Your task to perform on an android device: Clear all items from cart on costco.com. Search for asus rog on costco.com, select the first entry, and add it to the cart. Image 0: 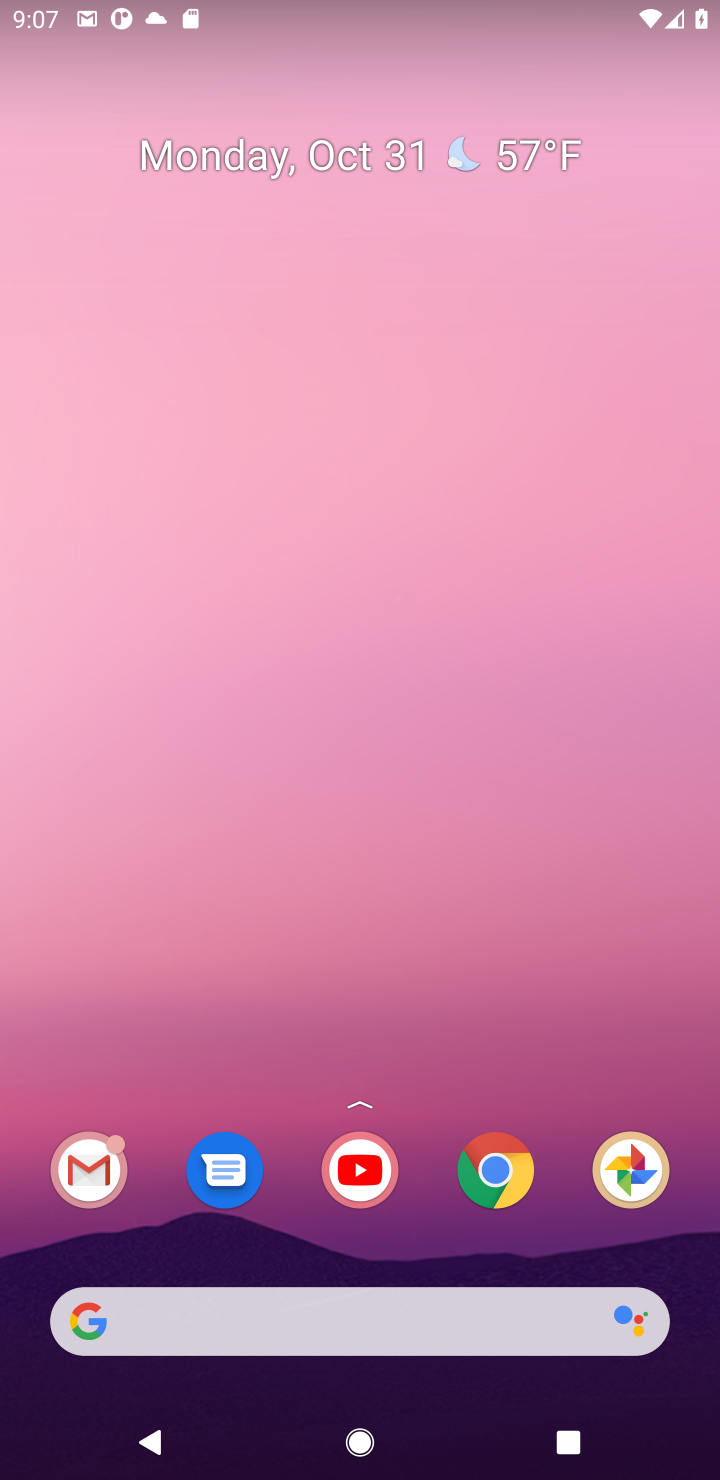
Step 0: click (489, 1173)
Your task to perform on an android device: Clear all items from cart on costco.com. Search for asus rog on costco.com, select the first entry, and add it to the cart. Image 1: 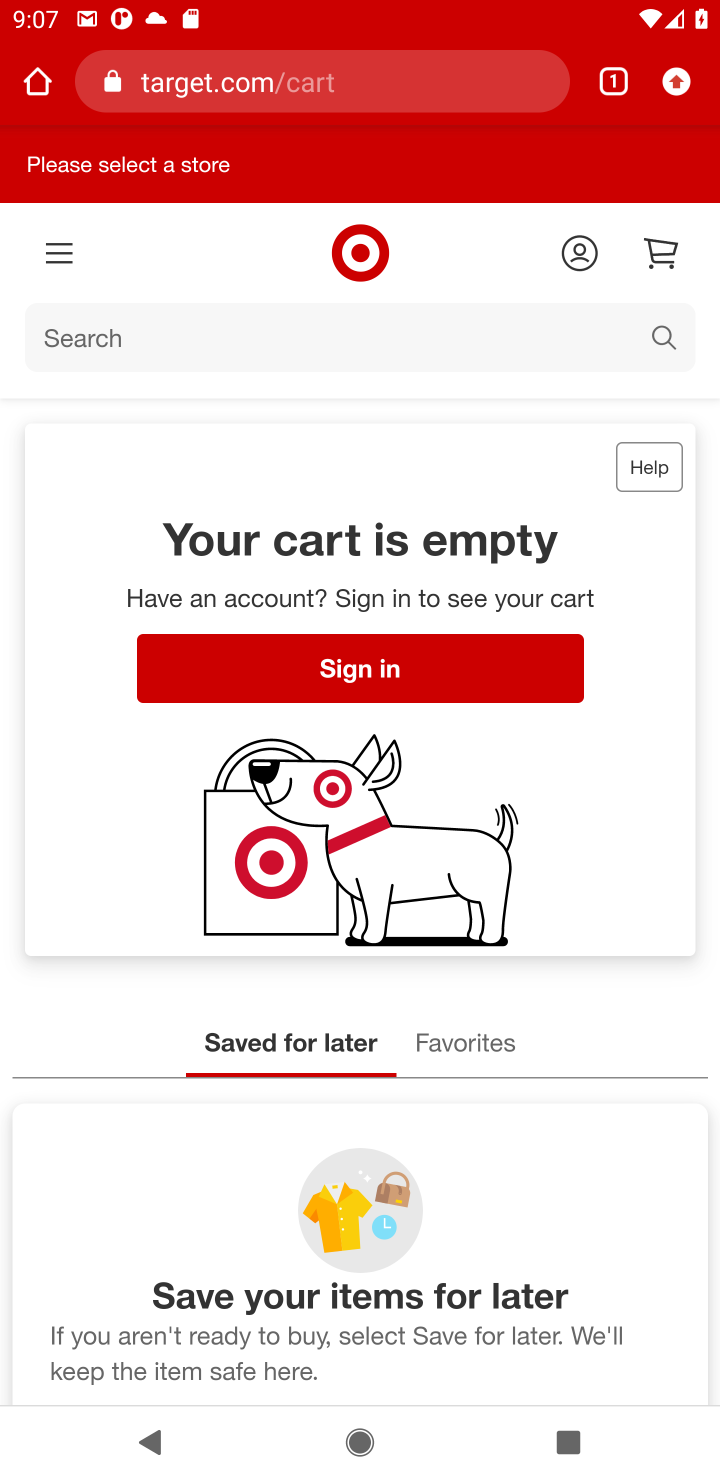
Step 1: click (367, 93)
Your task to perform on an android device: Clear all items from cart on costco.com. Search for asus rog on costco.com, select the first entry, and add it to the cart. Image 2: 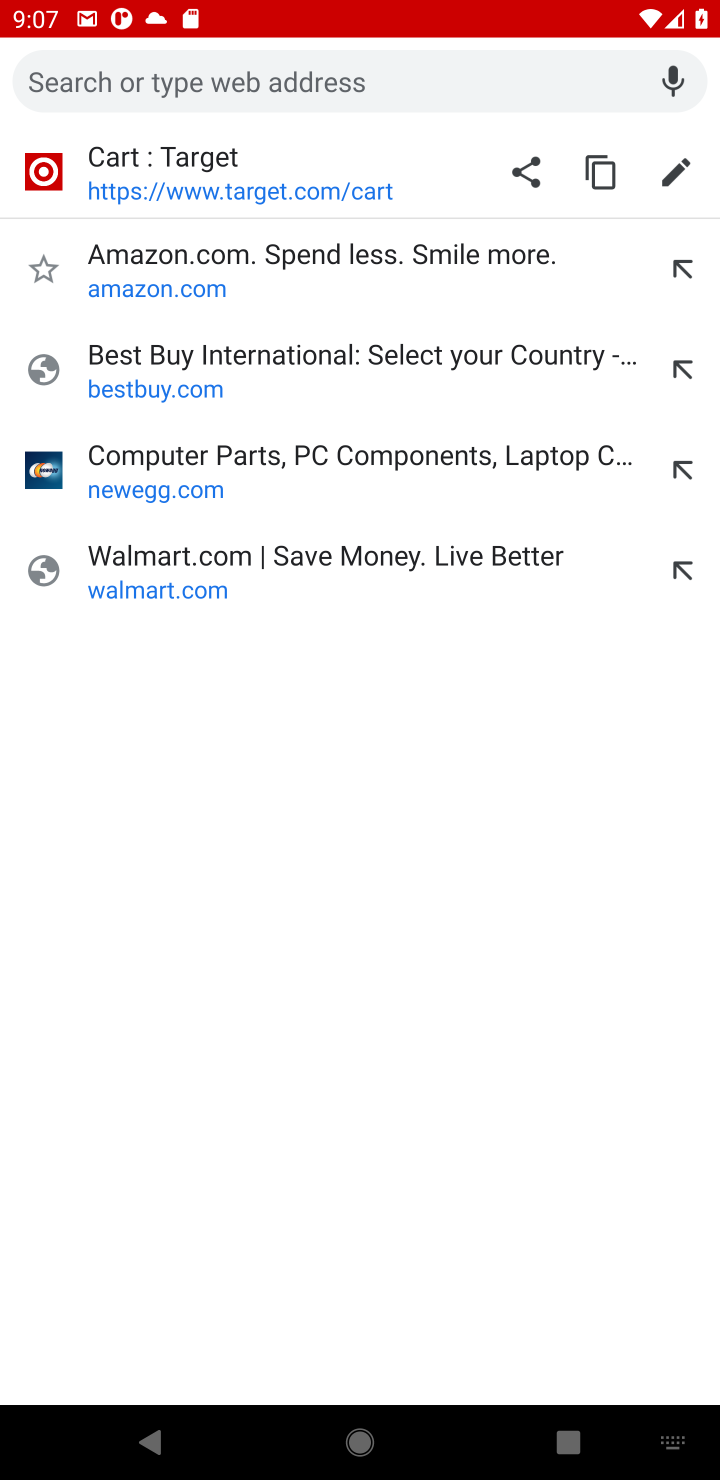
Step 2: type "costco"
Your task to perform on an android device: Clear all items from cart on costco.com. Search for asus rog on costco.com, select the first entry, and add it to the cart. Image 3: 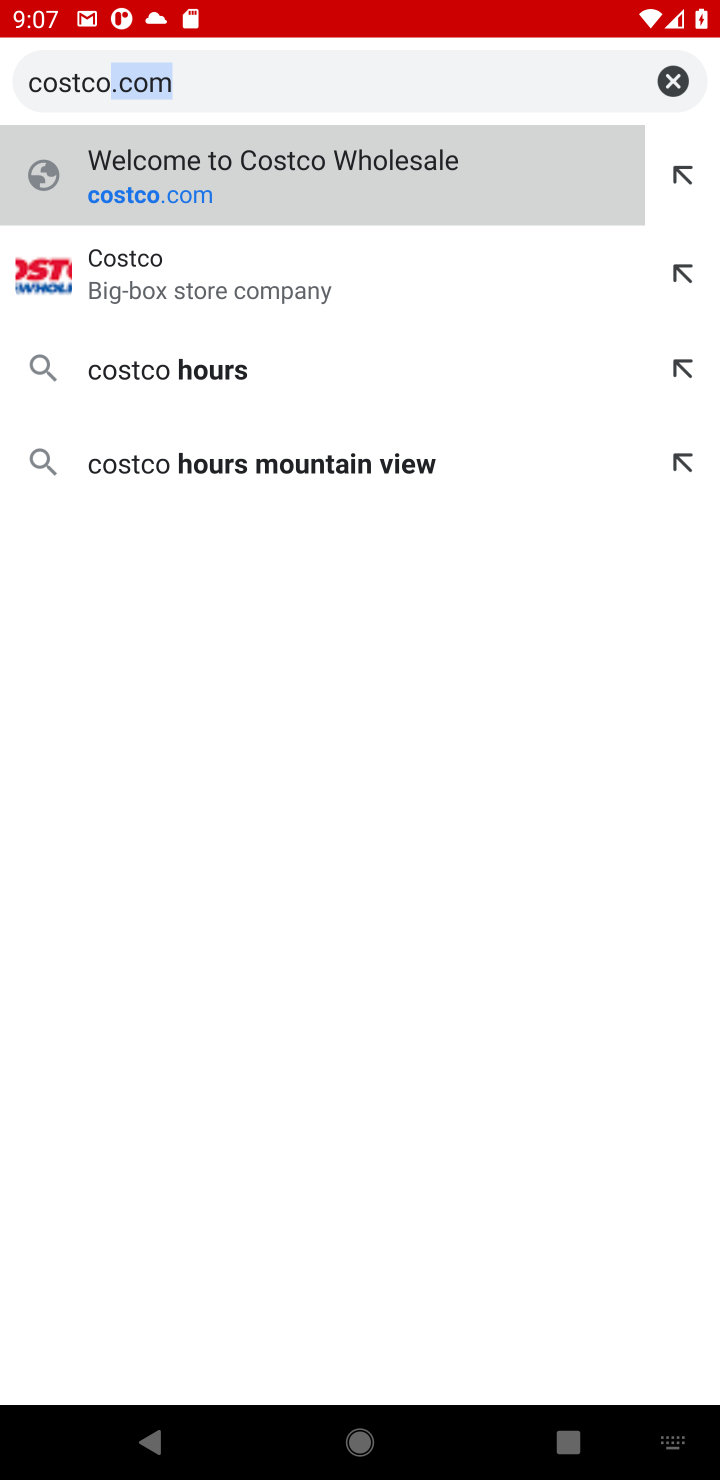
Step 3: click (148, 277)
Your task to perform on an android device: Clear all items from cart on costco.com. Search for asus rog on costco.com, select the first entry, and add it to the cart. Image 4: 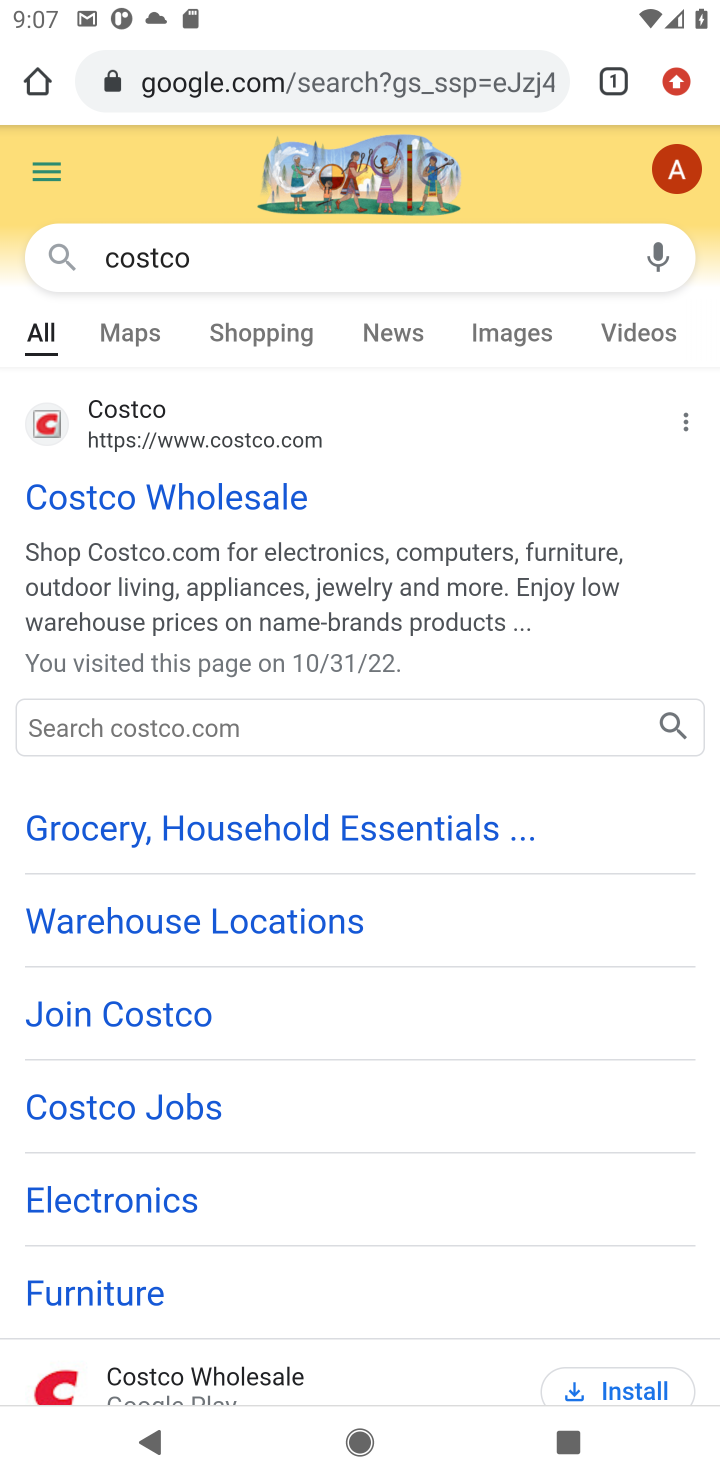
Step 4: click (74, 494)
Your task to perform on an android device: Clear all items from cart on costco.com. Search for asus rog on costco.com, select the first entry, and add it to the cart. Image 5: 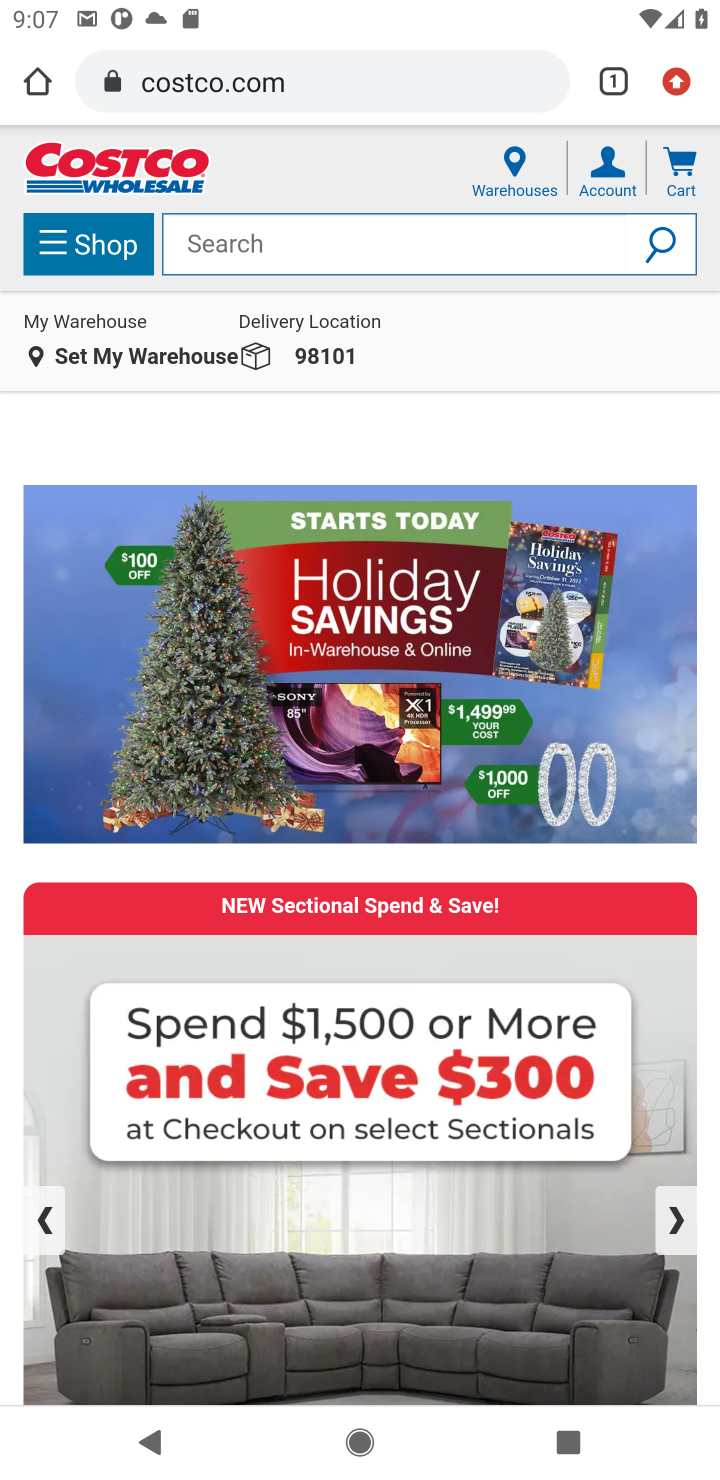
Step 5: click (661, 168)
Your task to perform on an android device: Clear all items from cart on costco.com. Search for asus rog on costco.com, select the first entry, and add it to the cart. Image 6: 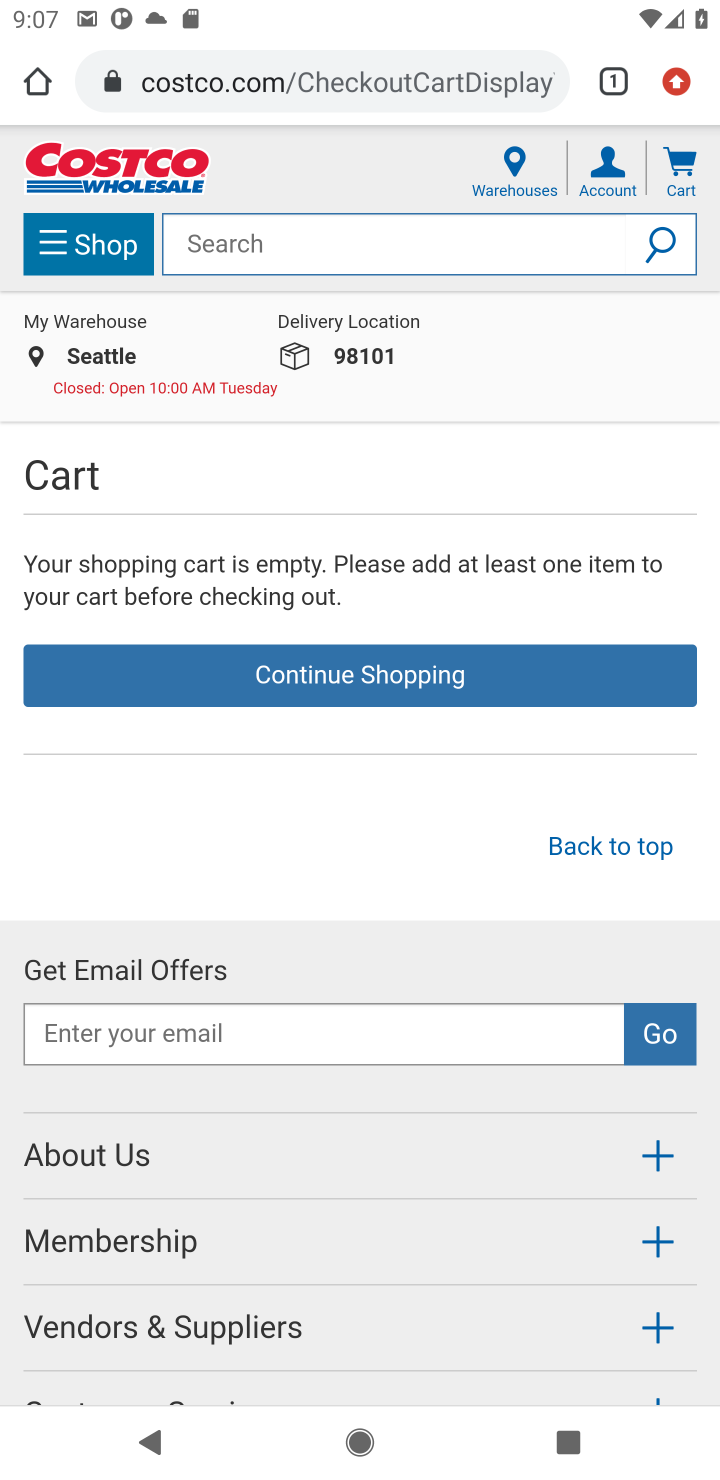
Step 6: click (212, 254)
Your task to perform on an android device: Clear all items from cart on costco.com. Search for asus rog on costco.com, select the first entry, and add it to the cart. Image 7: 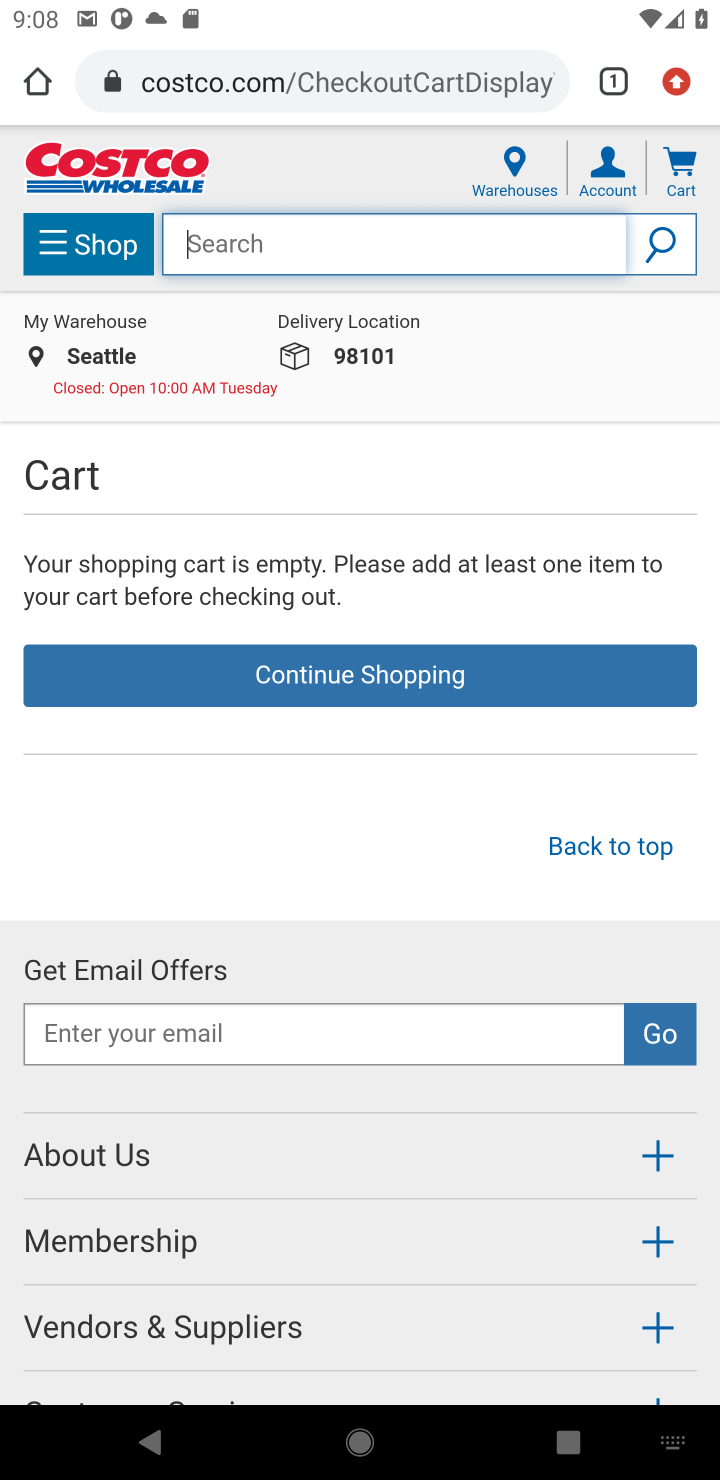
Step 7: type "asus rog"
Your task to perform on an android device: Clear all items from cart on costco.com. Search for asus rog on costco.com, select the first entry, and add it to the cart. Image 8: 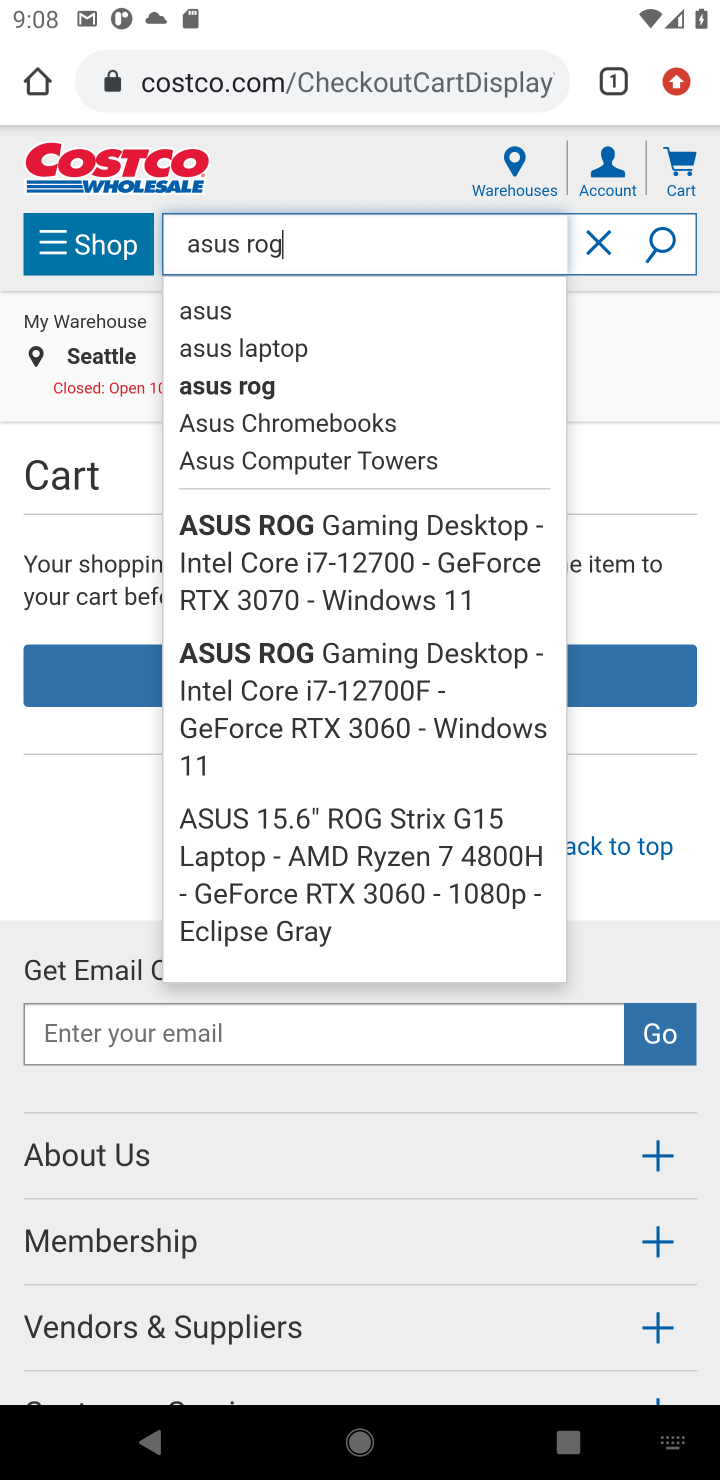
Step 8: click (669, 260)
Your task to perform on an android device: Clear all items from cart on costco.com. Search for asus rog on costco.com, select the first entry, and add it to the cart. Image 9: 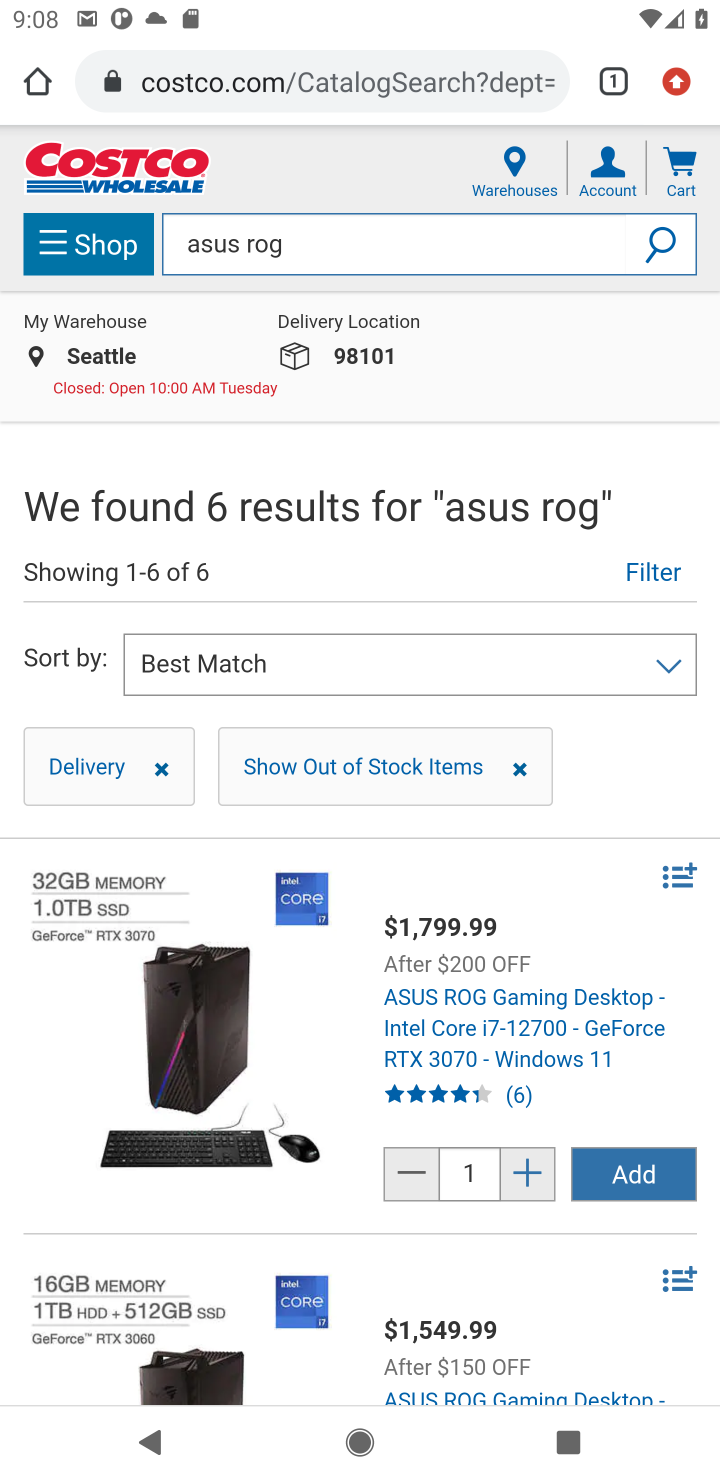
Step 9: click (666, 1182)
Your task to perform on an android device: Clear all items from cart on costco.com. Search for asus rog on costco.com, select the first entry, and add it to the cart. Image 10: 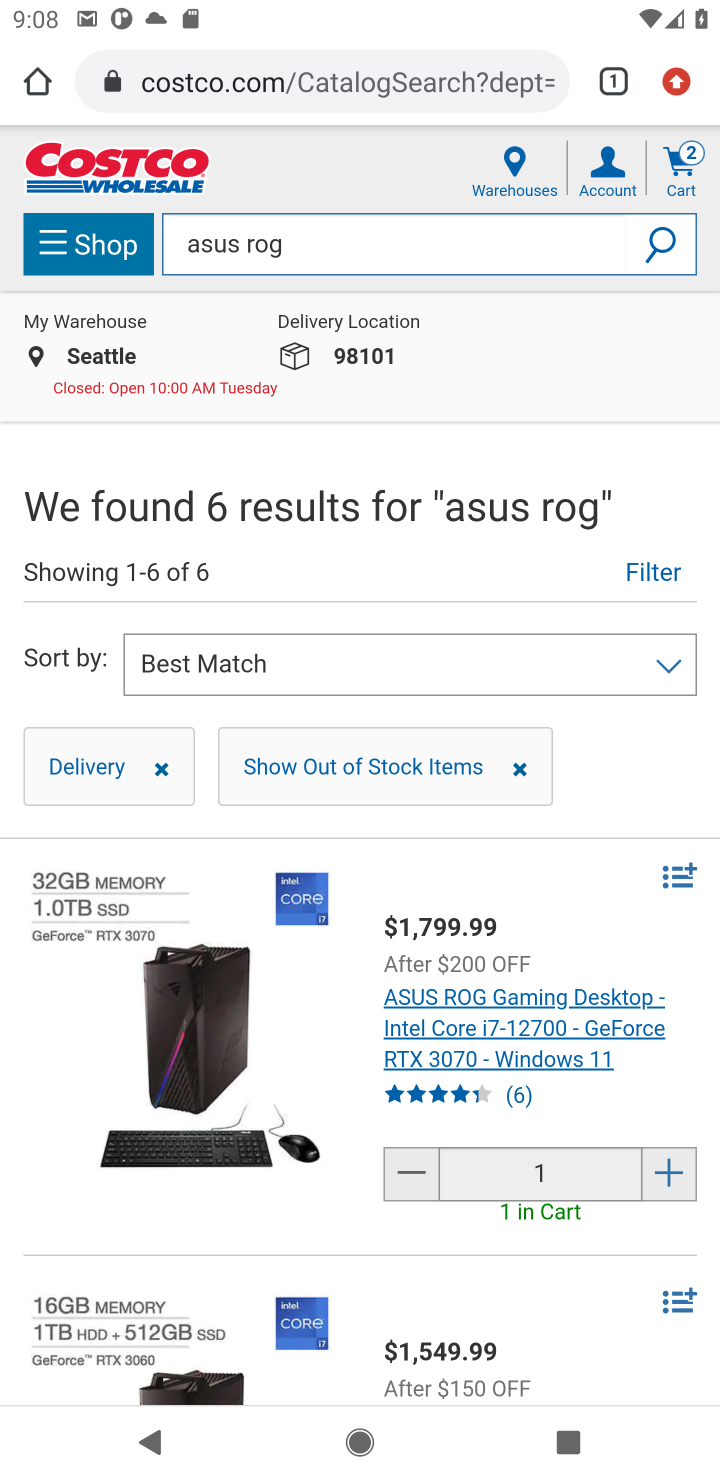
Step 10: click (621, 1171)
Your task to perform on an android device: Clear all items from cart on costco.com. Search for asus rog on costco.com, select the first entry, and add it to the cart. Image 11: 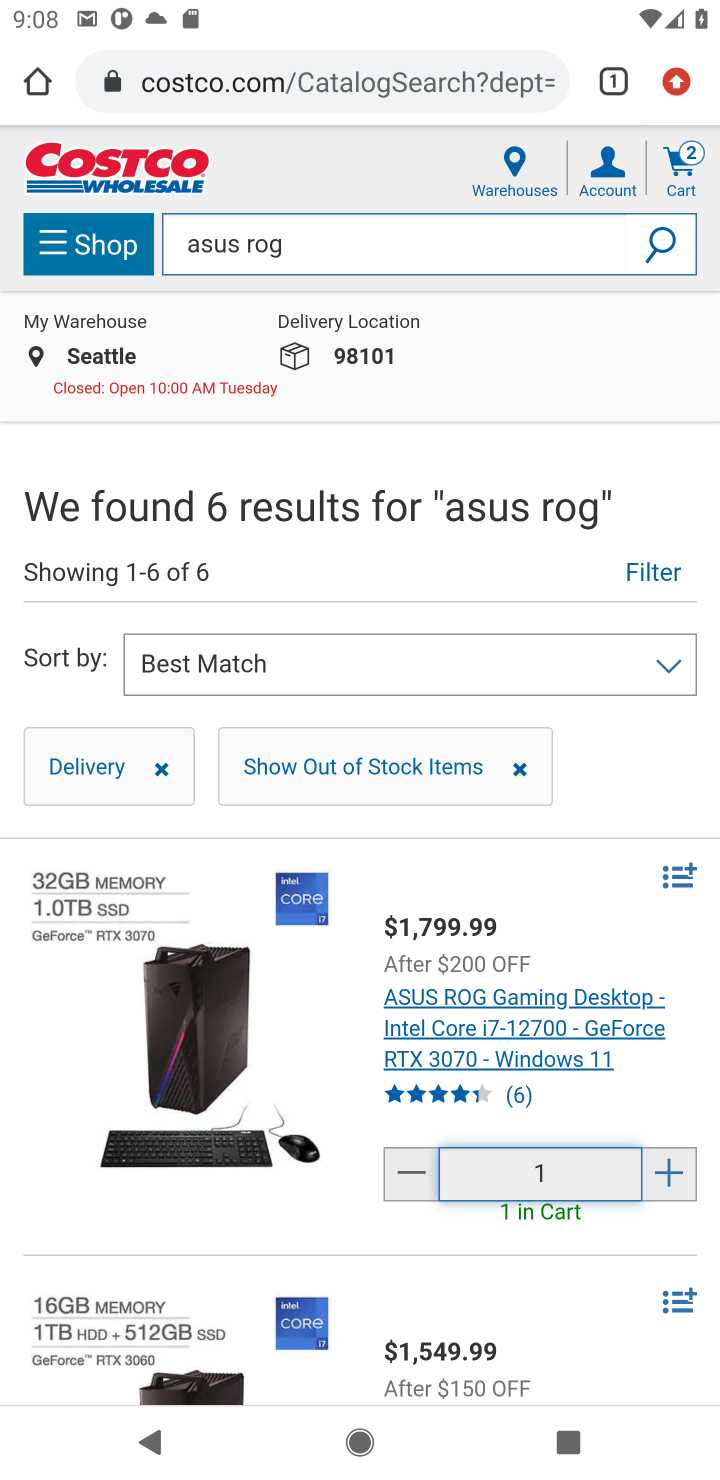
Step 11: task complete